Your task to perform on an android device: What is the recent news? Image 0: 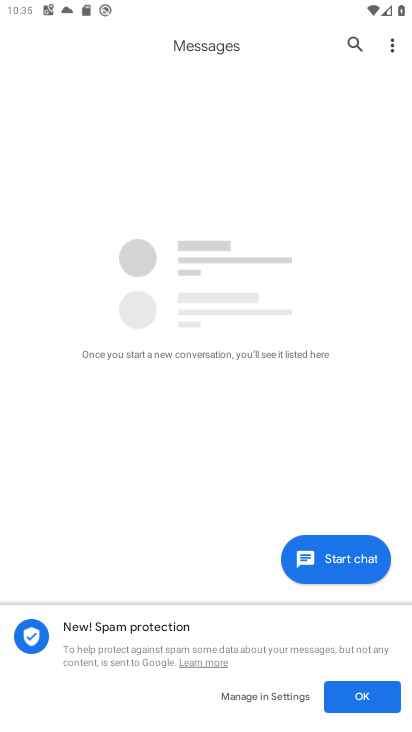
Step 0: press home button
Your task to perform on an android device: What is the recent news? Image 1: 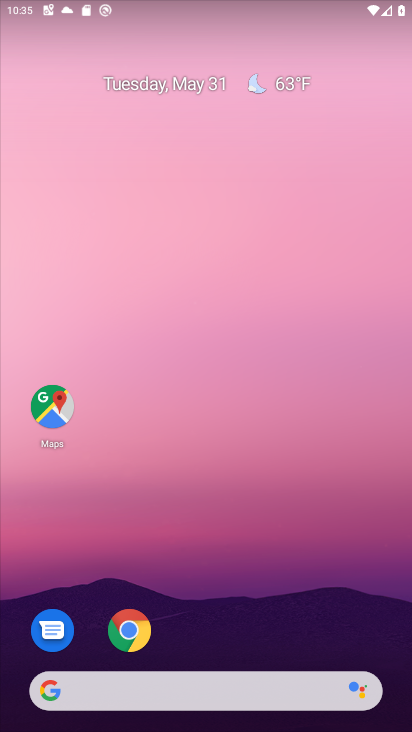
Step 1: click (130, 630)
Your task to perform on an android device: What is the recent news? Image 2: 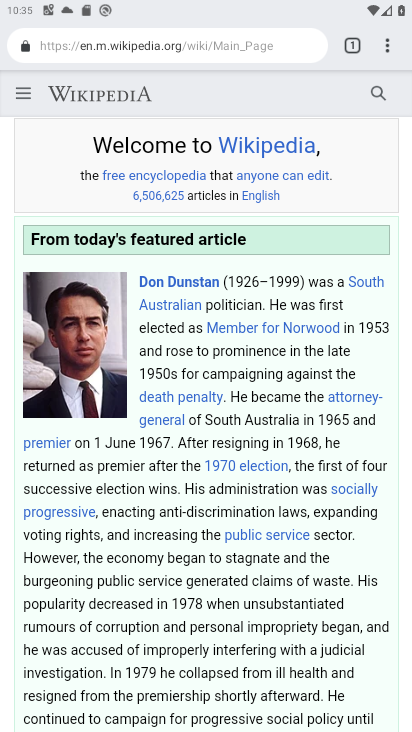
Step 2: click (221, 45)
Your task to perform on an android device: What is the recent news? Image 3: 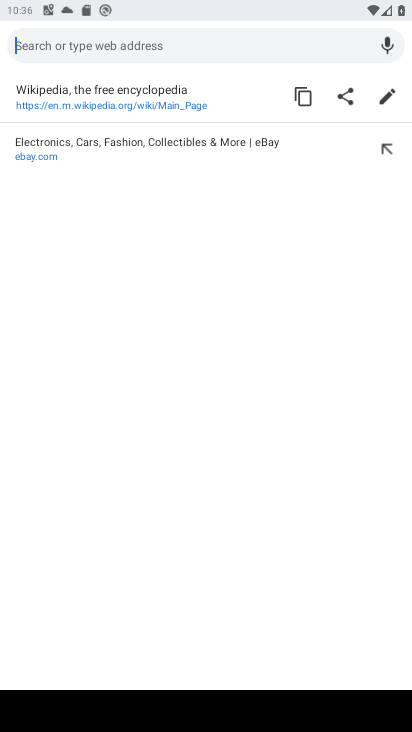
Step 3: type "news"
Your task to perform on an android device: What is the recent news? Image 4: 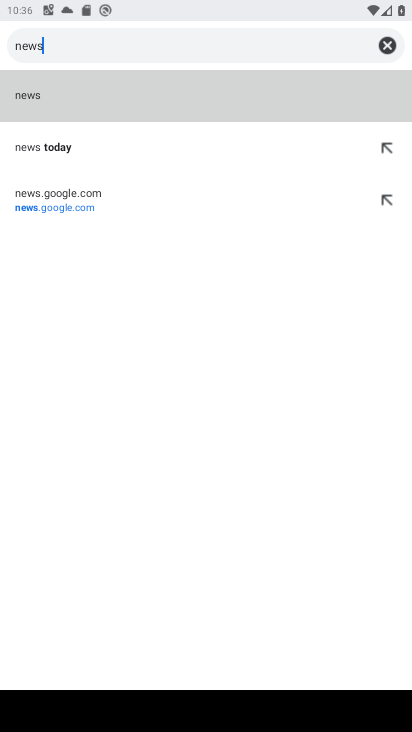
Step 4: click (24, 94)
Your task to perform on an android device: What is the recent news? Image 5: 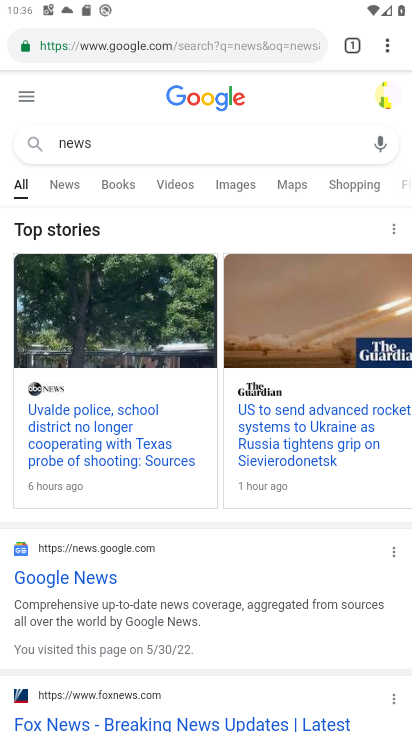
Step 5: click (59, 175)
Your task to perform on an android device: What is the recent news? Image 6: 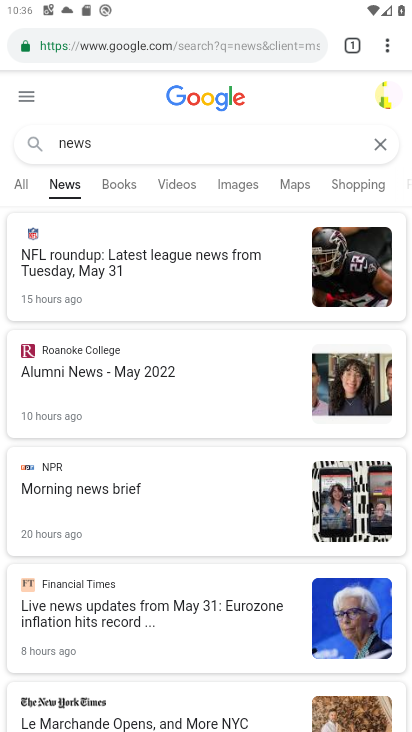
Step 6: task complete